Your task to perform on an android device: Open Youtube and go to the subscriptions tab Image 0: 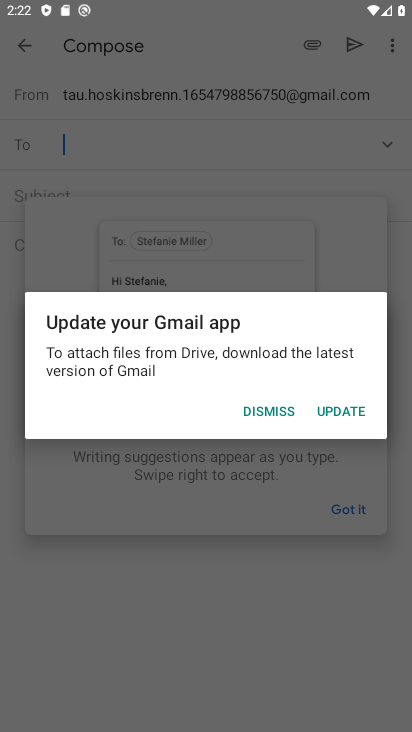
Step 0: press home button
Your task to perform on an android device: Open Youtube and go to the subscriptions tab Image 1: 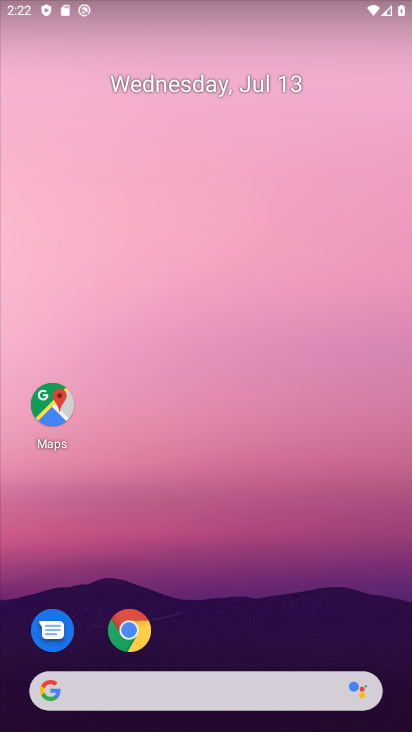
Step 1: drag from (312, 620) to (198, 120)
Your task to perform on an android device: Open Youtube and go to the subscriptions tab Image 2: 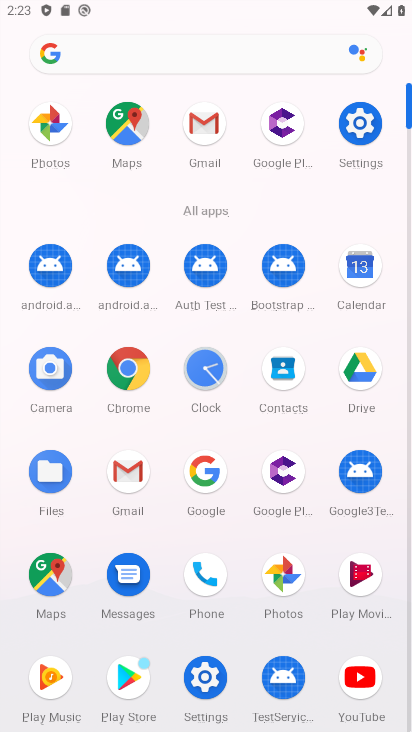
Step 2: click (359, 680)
Your task to perform on an android device: Open Youtube and go to the subscriptions tab Image 3: 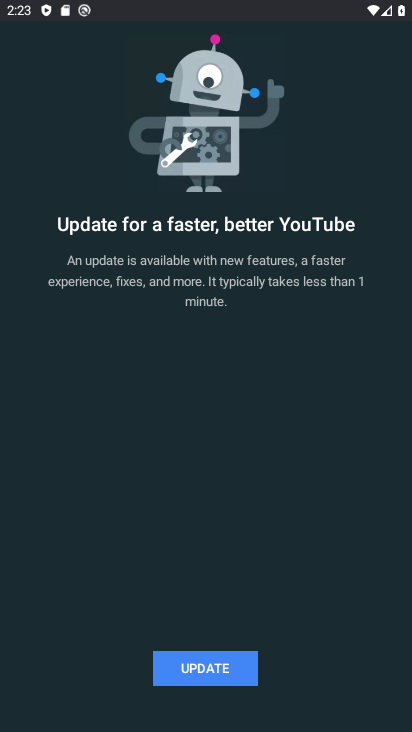
Step 3: click (205, 672)
Your task to perform on an android device: Open Youtube and go to the subscriptions tab Image 4: 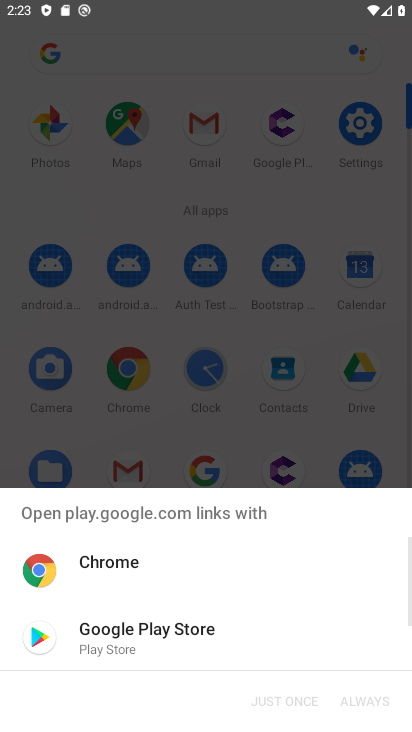
Step 4: click (181, 639)
Your task to perform on an android device: Open Youtube and go to the subscriptions tab Image 5: 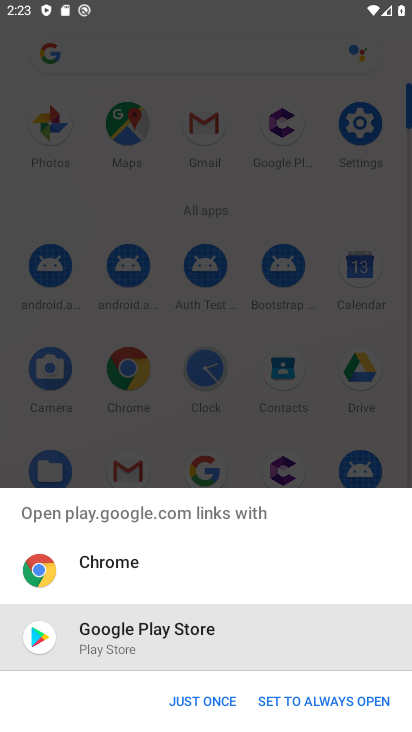
Step 5: click (205, 698)
Your task to perform on an android device: Open Youtube and go to the subscriptions tab Image 6: 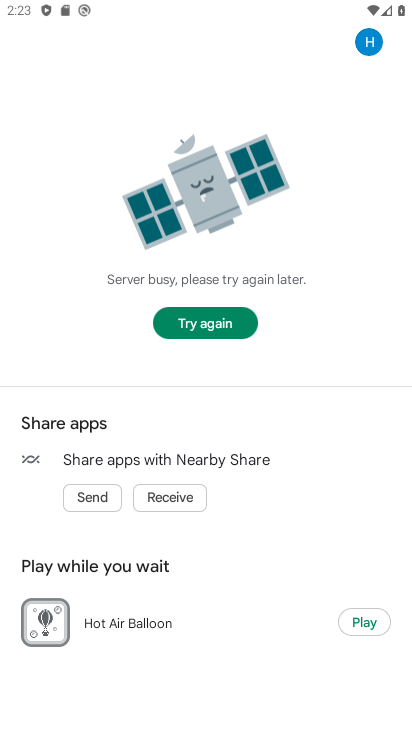
Step 6: task complete